Your task to perform on an android device: Open calendar and show me the third week of next month Image 0: 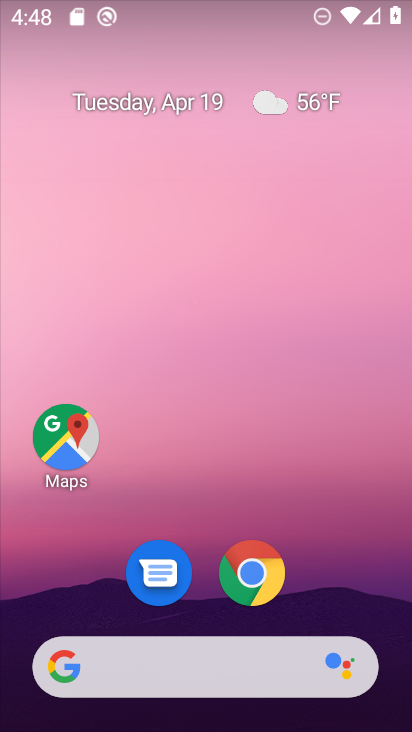
Step 0: drag from (397, 583) to (388, 30)
Your task to perform on an android device: Open calendar and show me the third week of next month Image 1: 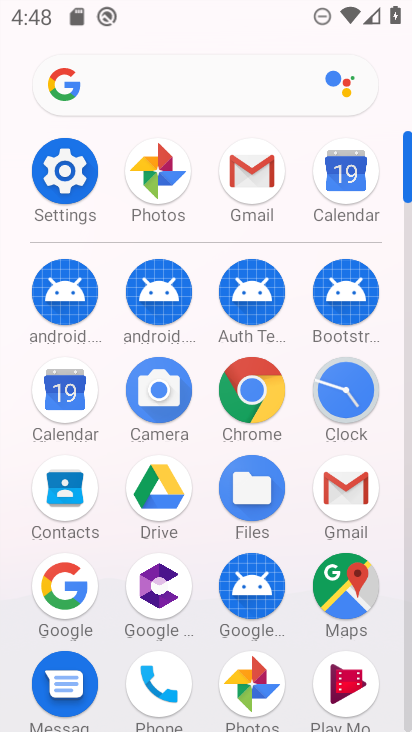
Step 1: click (352, 178)
Your task to perform on an android device: Open calendar and show me the third week of next month Image 2: 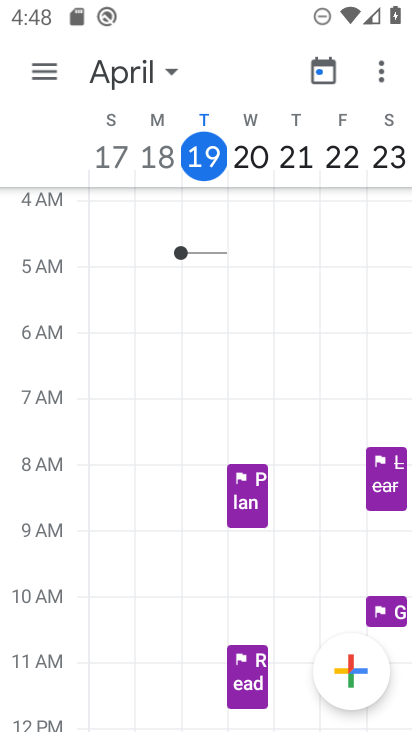
Step 2: click (165, 76)
Your task to perform on an android device: Open calendar and show me the third week of next month Image 3: 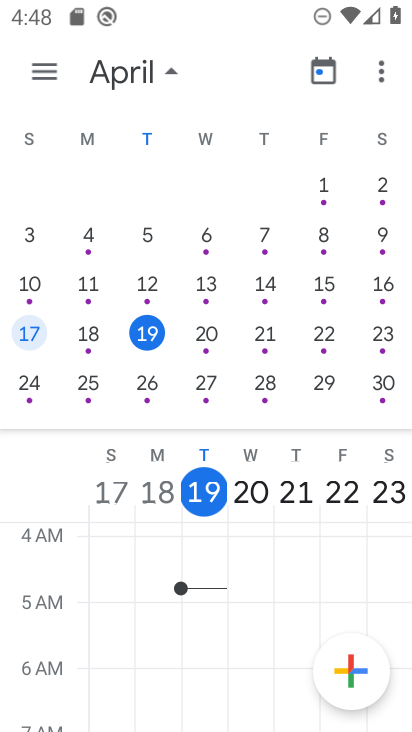
Step 3: drag from (324, 300) to (10, 292)
Your task to perform on an android device: Open calendar and show me the third week of next month Image 4: 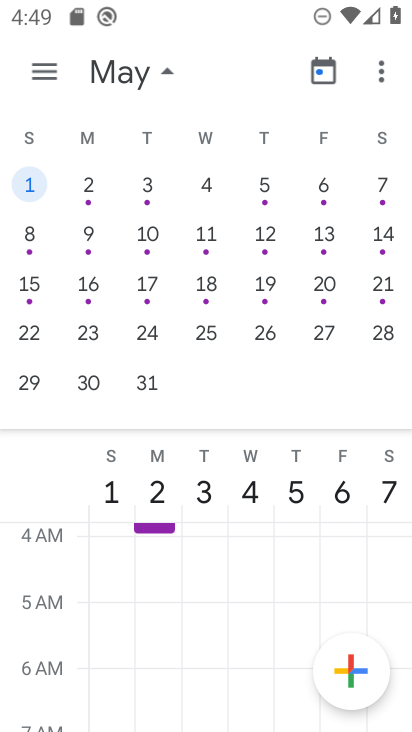
Step 4: click (37, 78)
Your task to perform on an android device: Open calendar and show me the third week of next month Image 5: 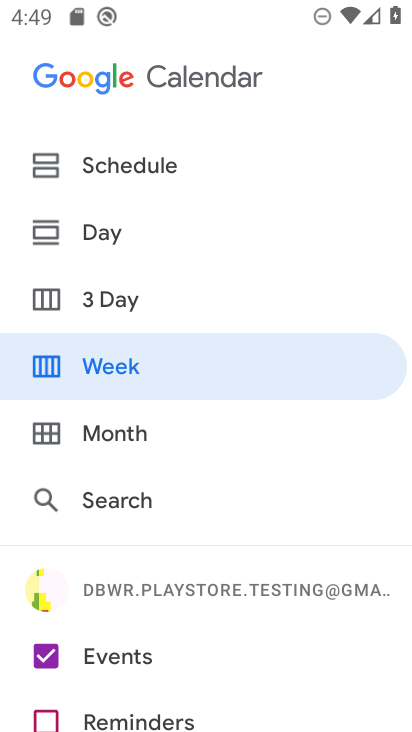
Step 5: click (98, 375)
Your task to perform on an android device: Open calendar and show me the third week of next month Image 6: 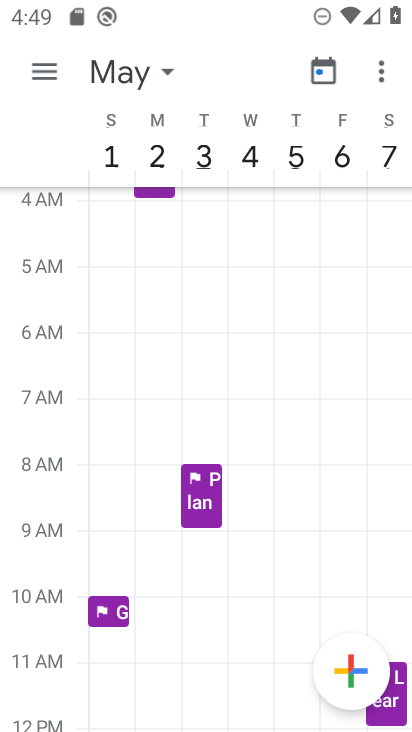
Step 6: task complete